Your task to perform on an android device: open wifi settings Image 0: 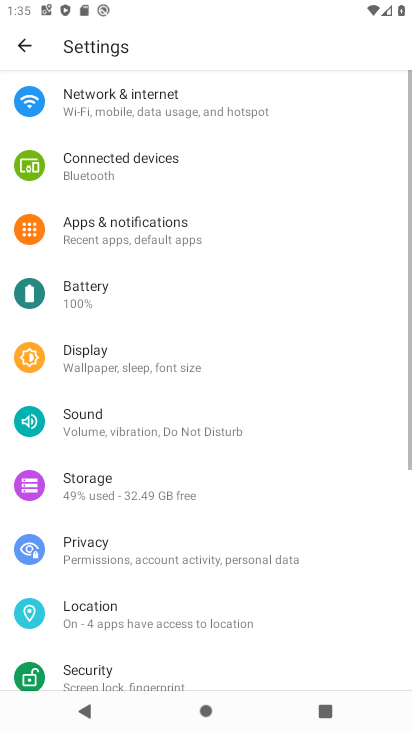
Step 0: click (155, 99)
Your task to perform on an android device: open wifi settings Image 1: 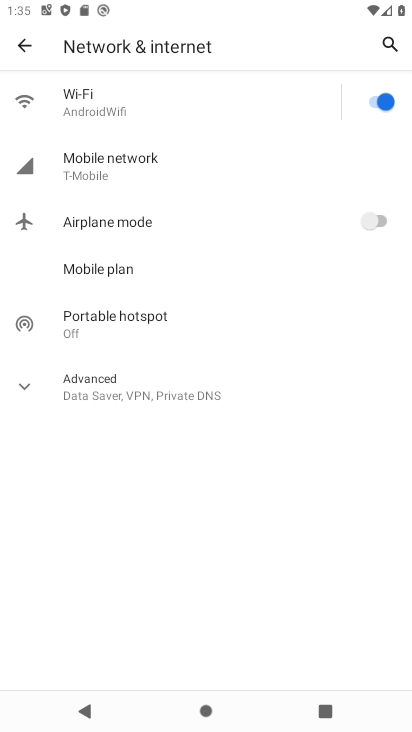
Step 1: click (103, 92)
Your task to perform on an android device: open wifi settings Image 2: 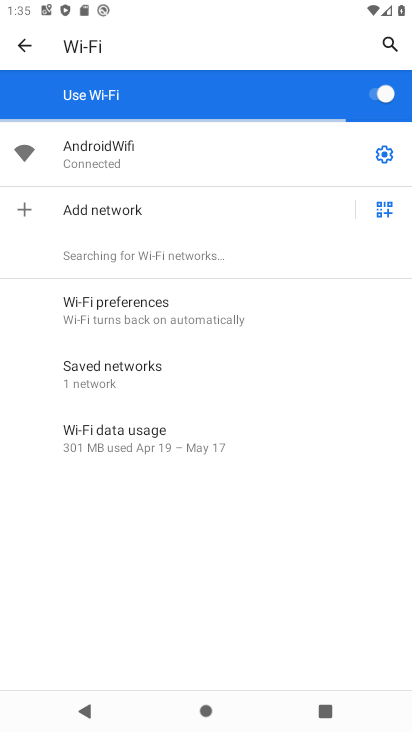
Step 2: task complete